Your task to perform on an android device: delete the emails in spam in the gmail app Image 0: 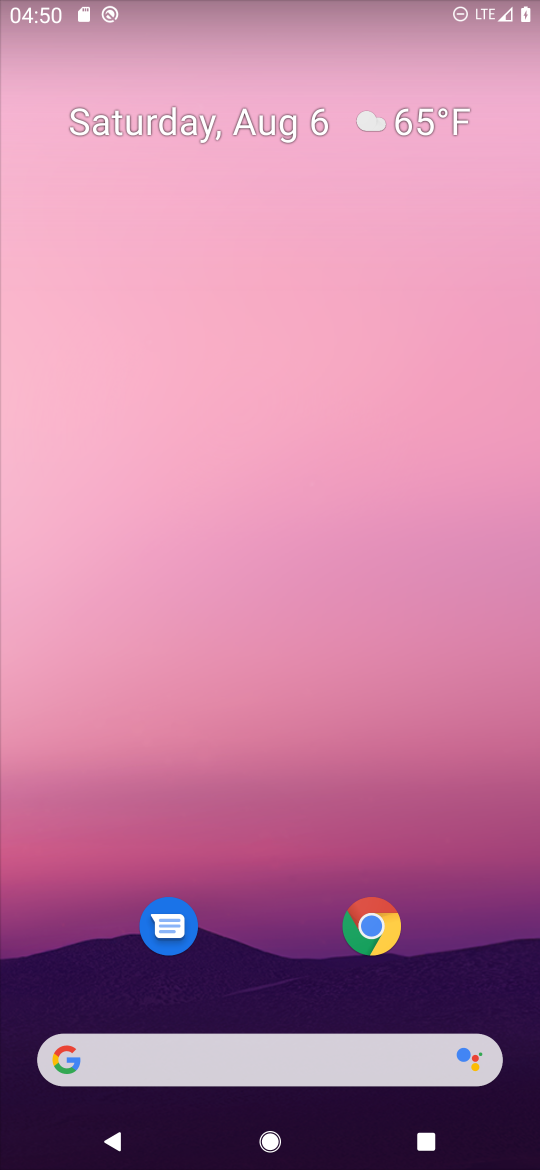
Step 0: drag from (265, 923) to (304, 122)
Your task to perform on an android device: delete the emails in spam in the gmail app Image 1: 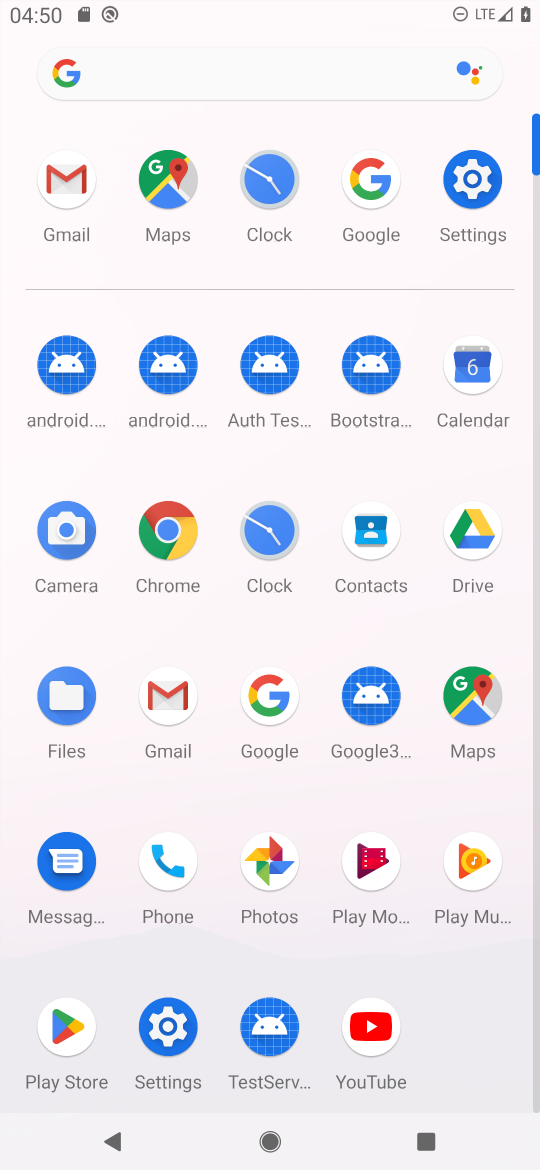
Step 1: click (68, 200)
Your task to perform on an android device: delete the emails in spam in the gmail app Image 2: 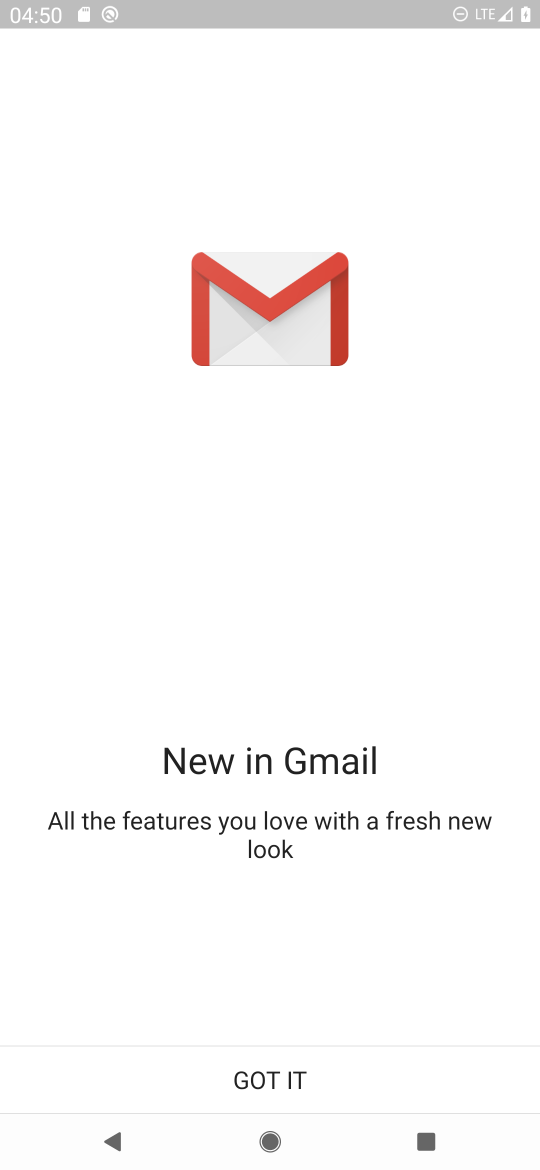
Step 2: click (313, 1107)
Your task to perform on an android device: delete the emails in spam in the gmail app Image 3: 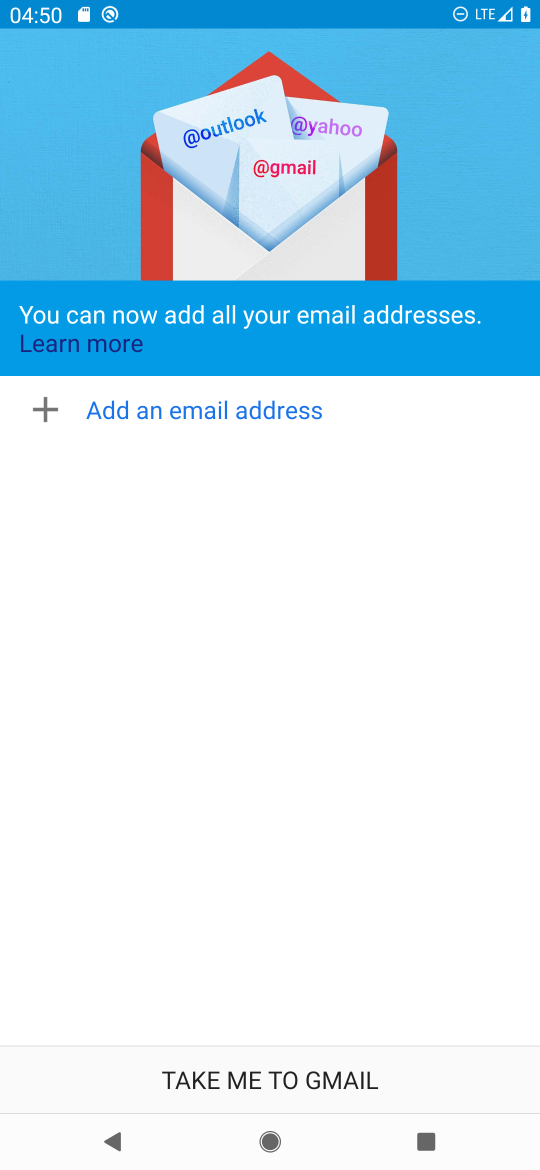
Step 3: click (348, 1093)
Your task to perform on an android device: delete the emails in spam in the gmail app Image 4: 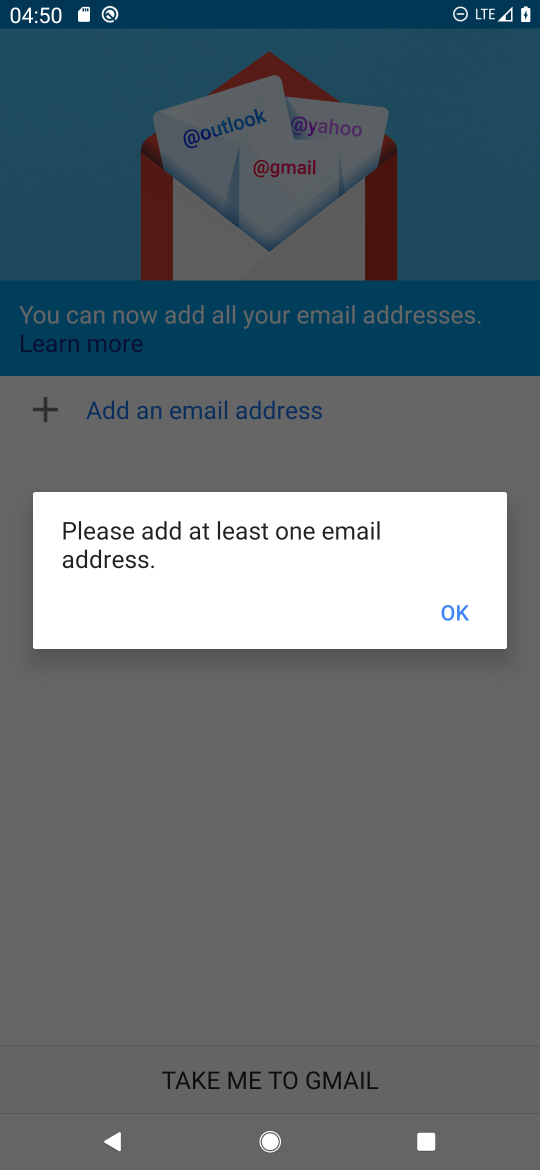
Step 4: click (466, 627)
Your task to perform on an android device: delete the emails in spam in the gmail app Image 5: 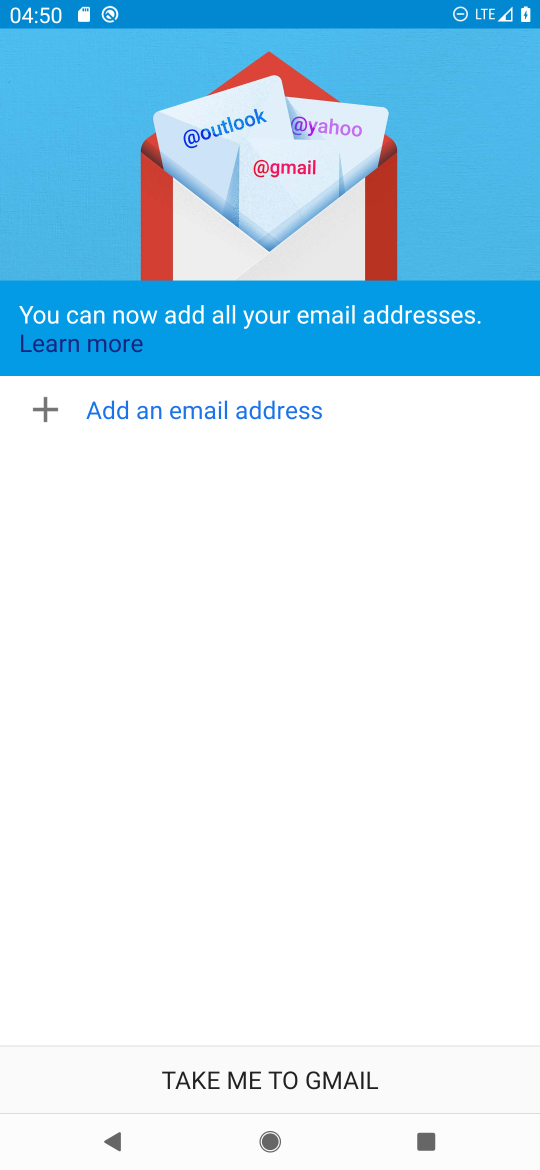
Step 5: task complete